Your task to perform on an android device: turn on bluetooth scan Image 0: 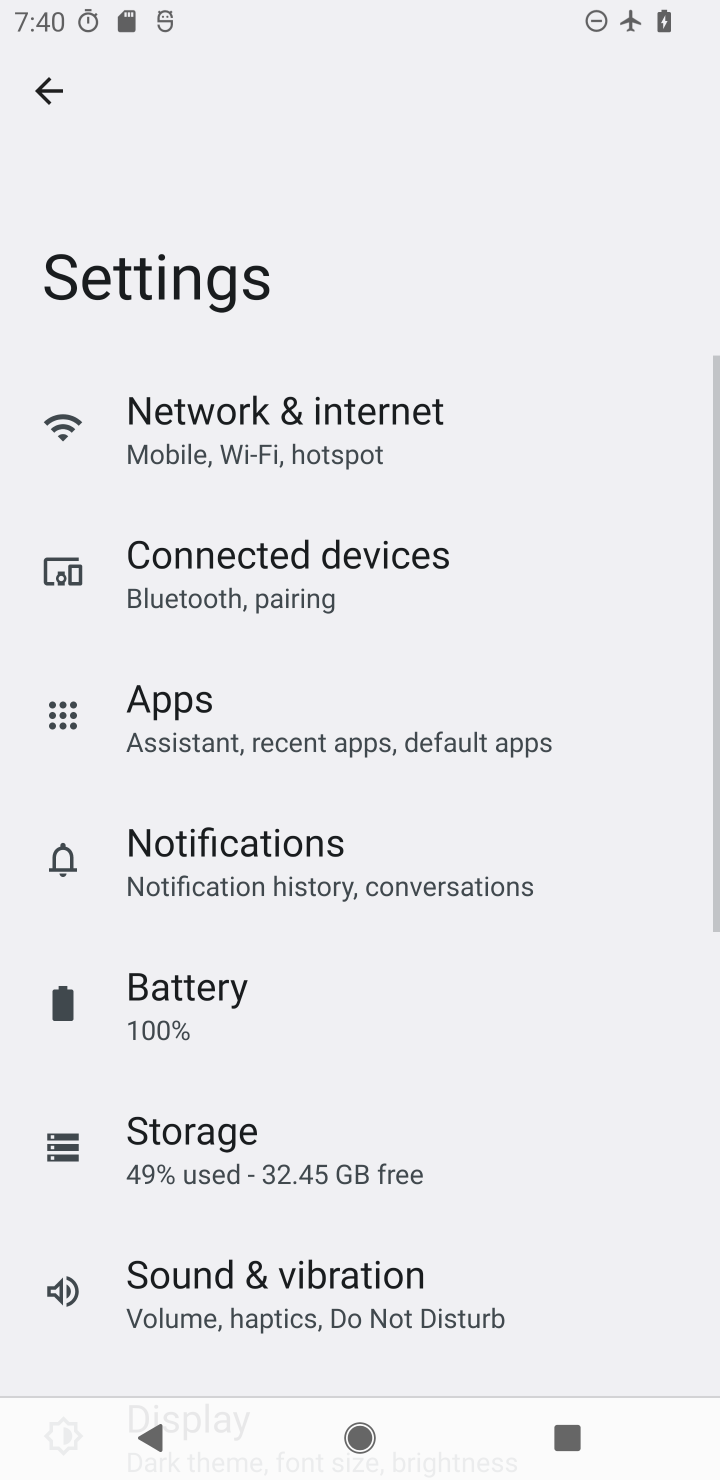
Step 0: press home button
Your task to perform on an android device: turn on bluetooth scan Image 1: 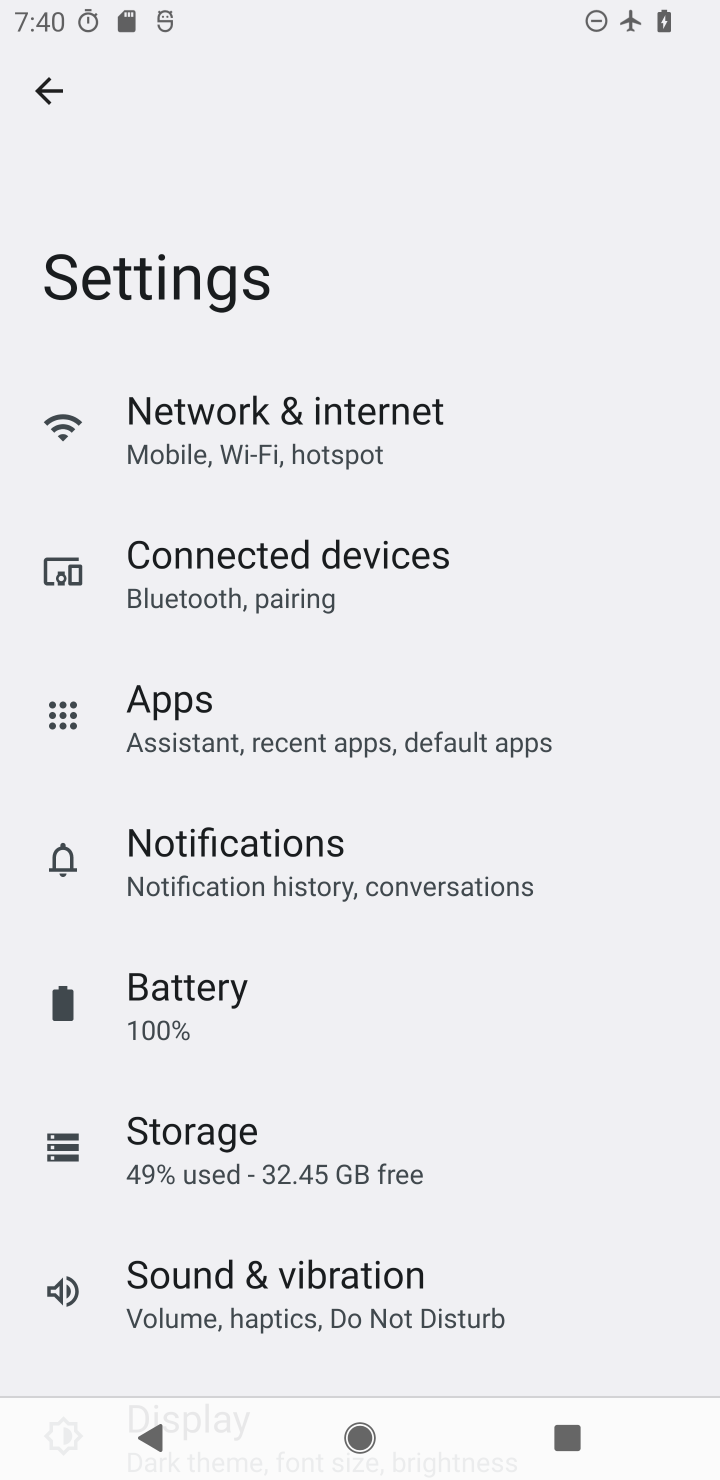
Step 1: press home button
Your task to perform on an android device: turn on bluetooth scan Image 2: 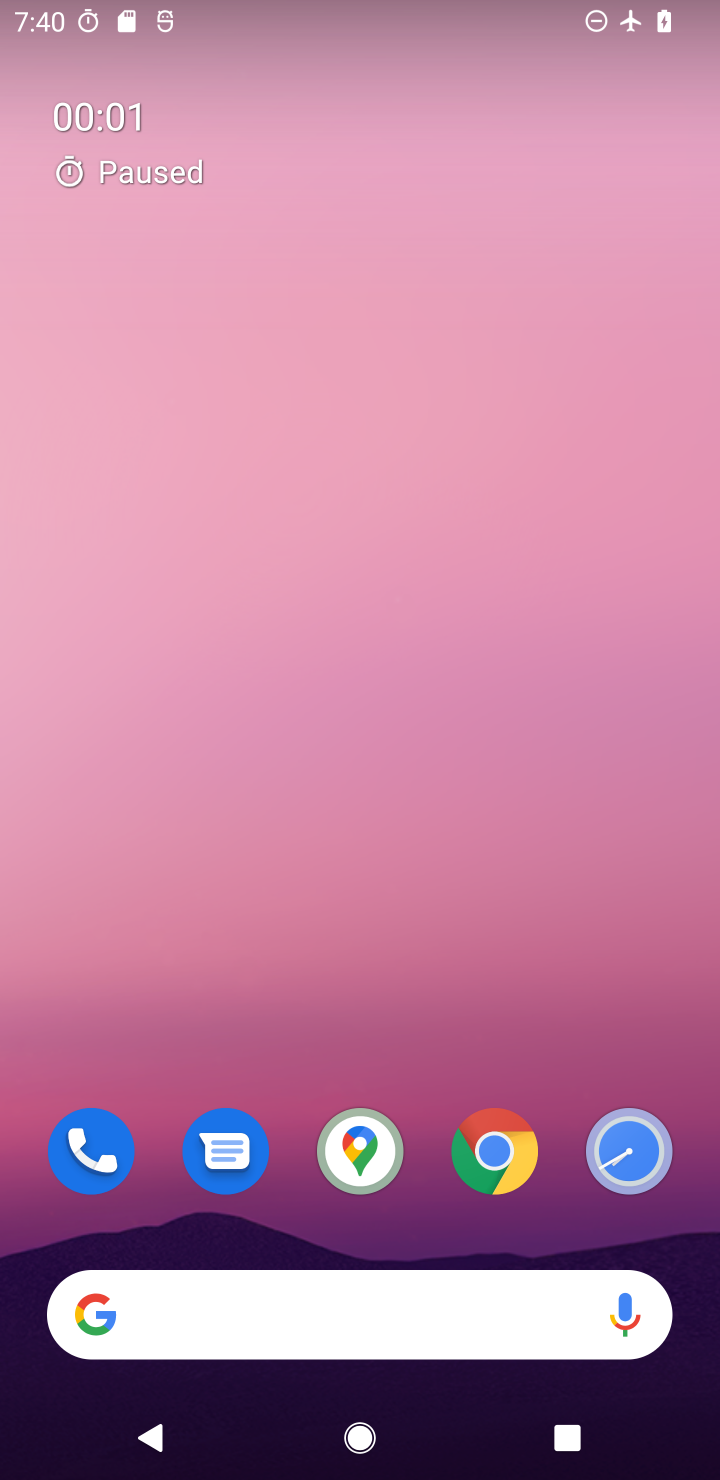
Step 2: drag from (366, 980) to (388, 2)
Your task to perform on an android device: turn on bluetooth scan Image 3: 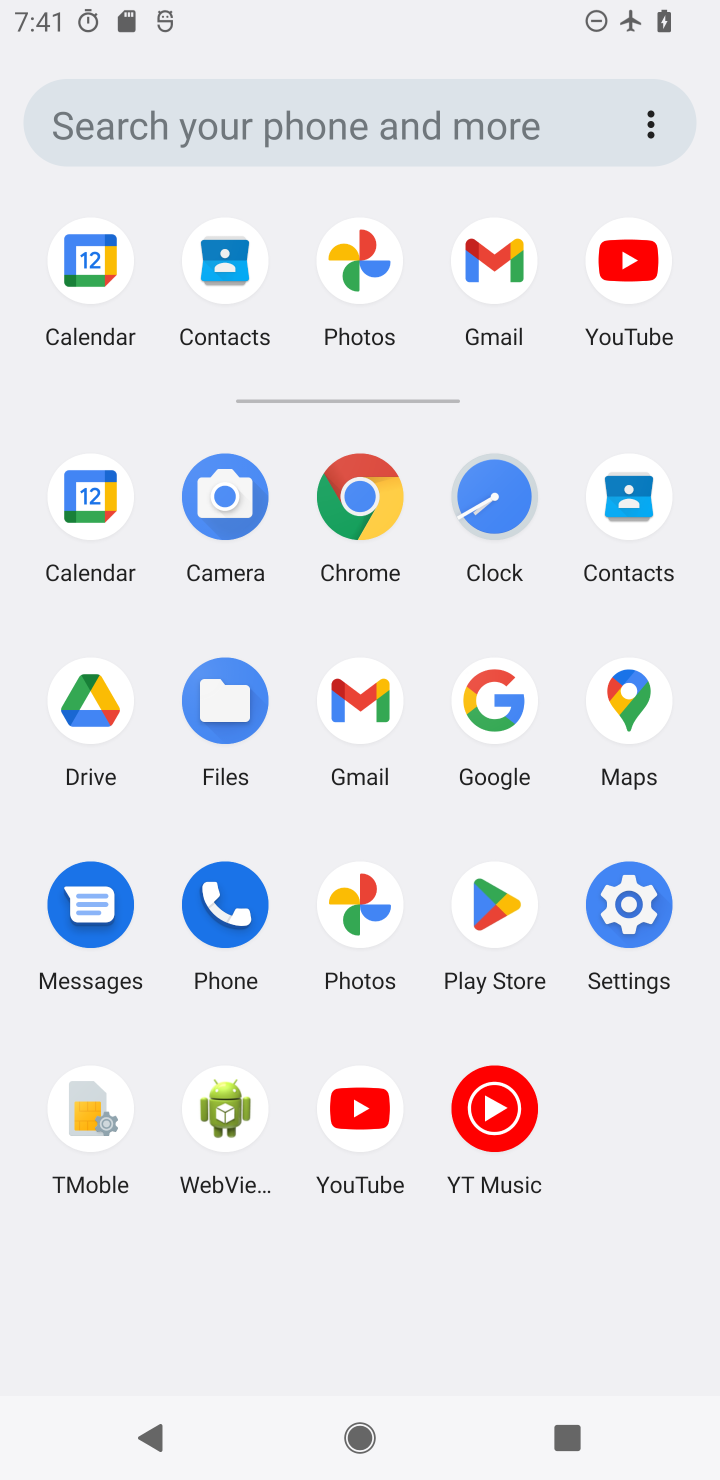
Step 3: click (608, 904)
Your task to perform on an android device: turn on bluetooth scan Image 4: 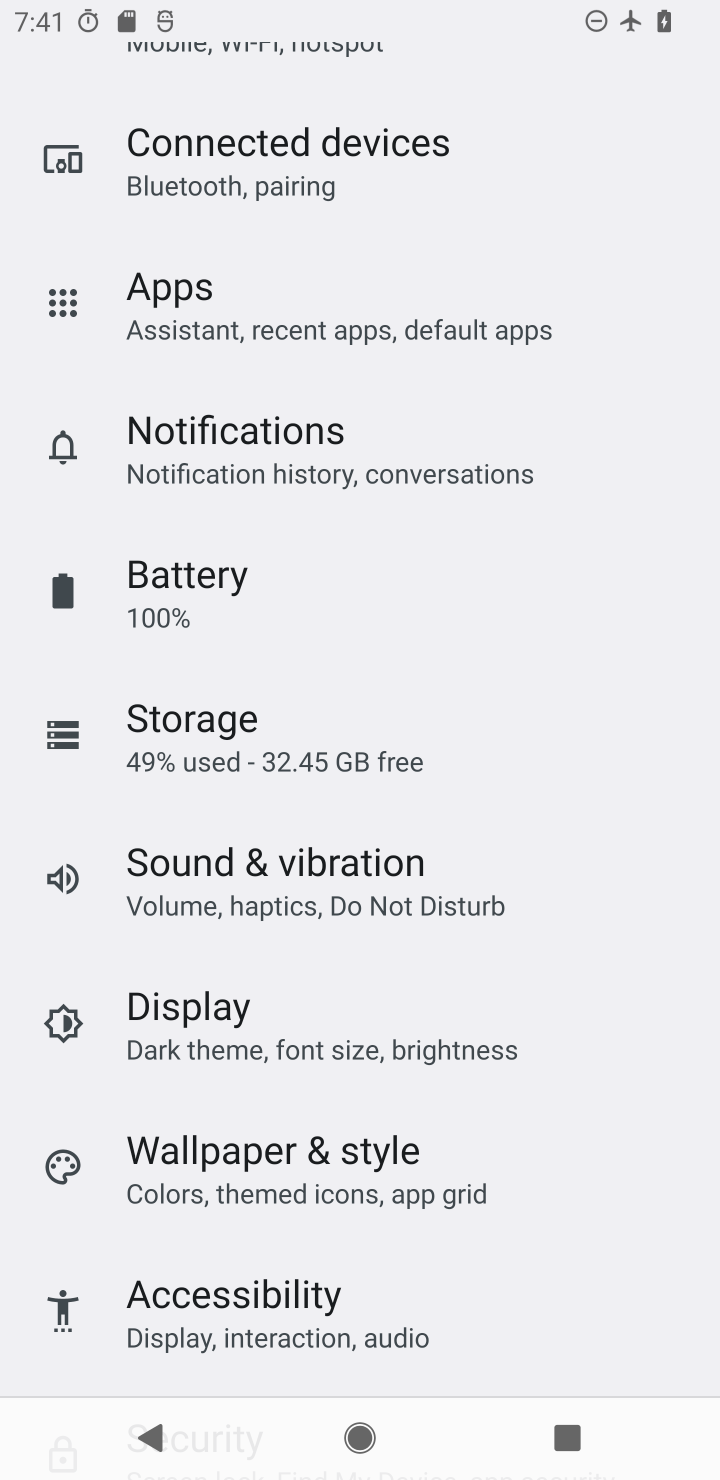
Step 4: drag from (553, 937) to (563, 255)
Your task to perform on an android device: turn on bluetooth scan Image 5: 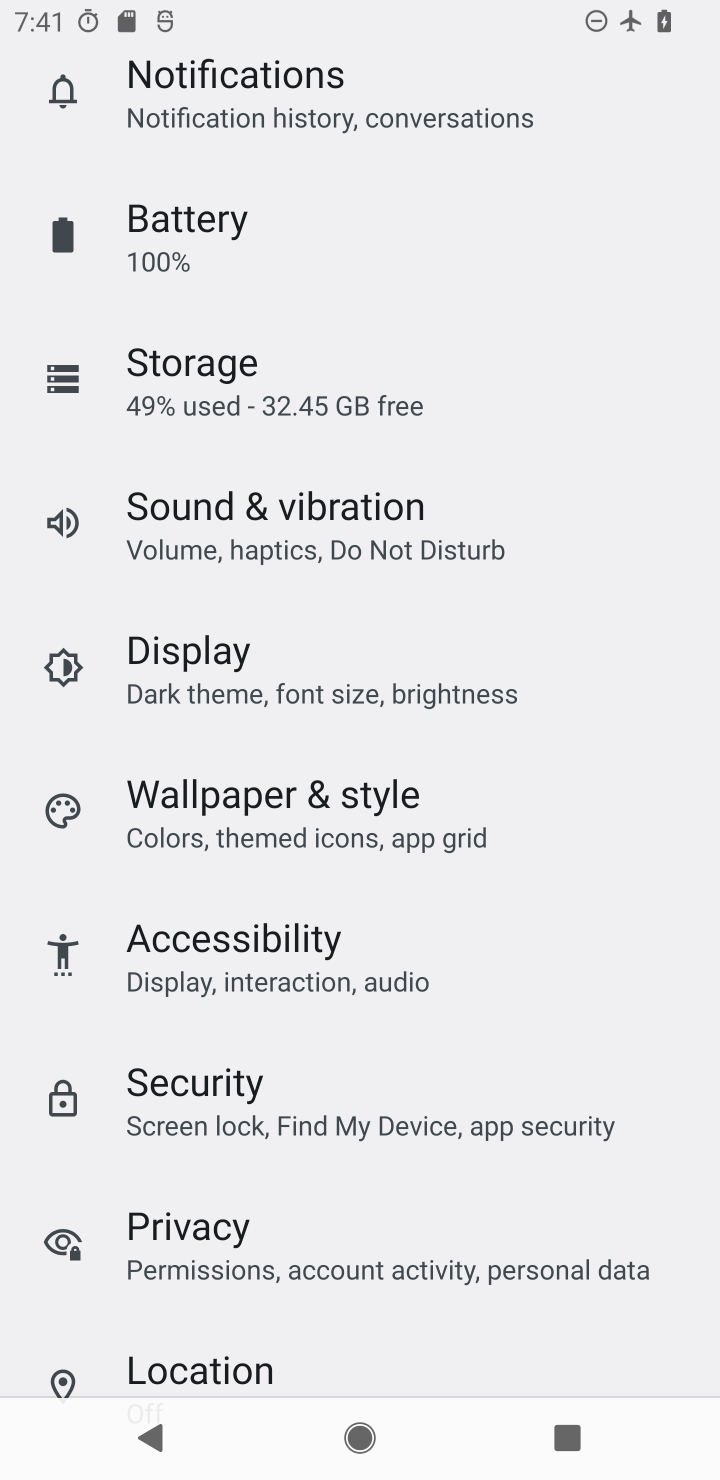
Step 5: drag from (503, 322) to (614, 211)
Your task to perform on an android device: turn on bluetooth scan Image 6: 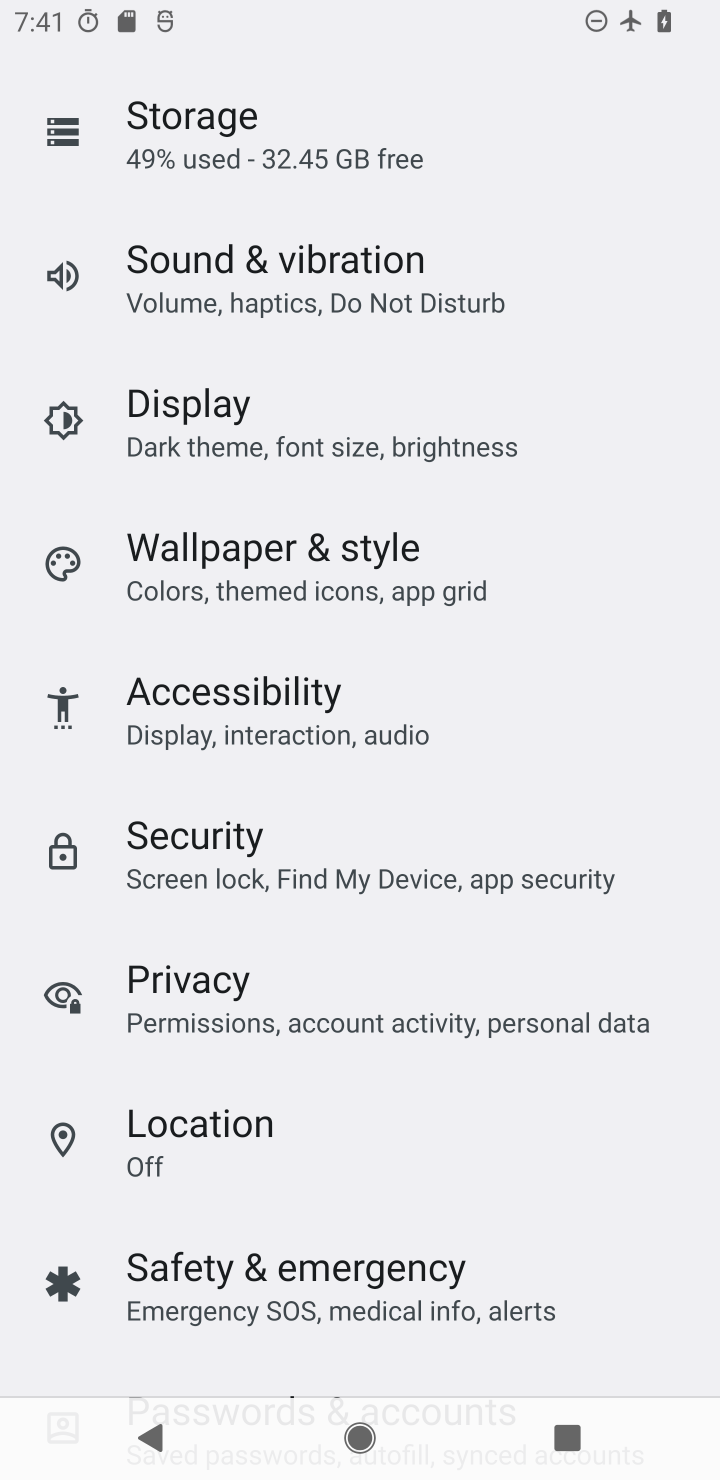
Step 6: click (240, 1136)
Your task to perform on an android device: turn on bluetooth scan Image 7: 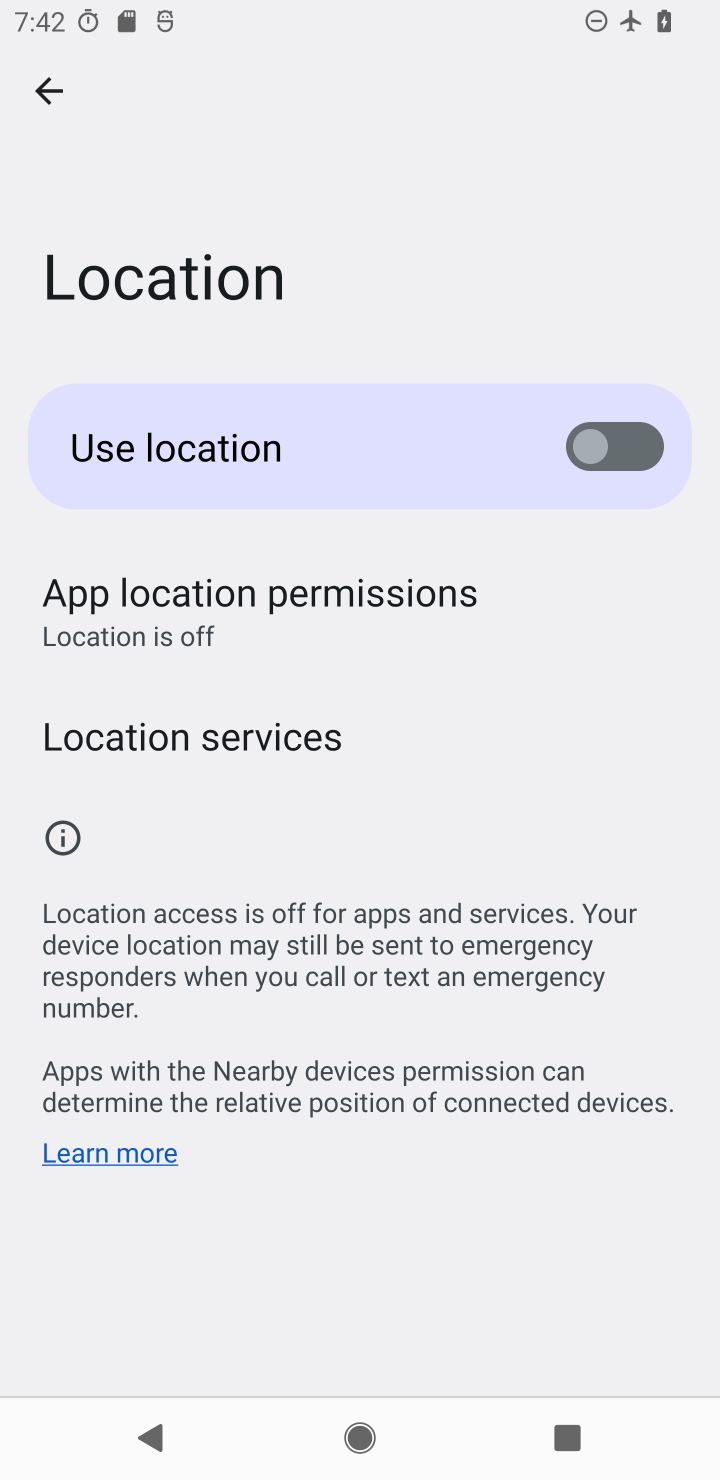
Step 7: click (296, 722)
Your task to perform on an android device: turn on bluetooth scan Image 8: 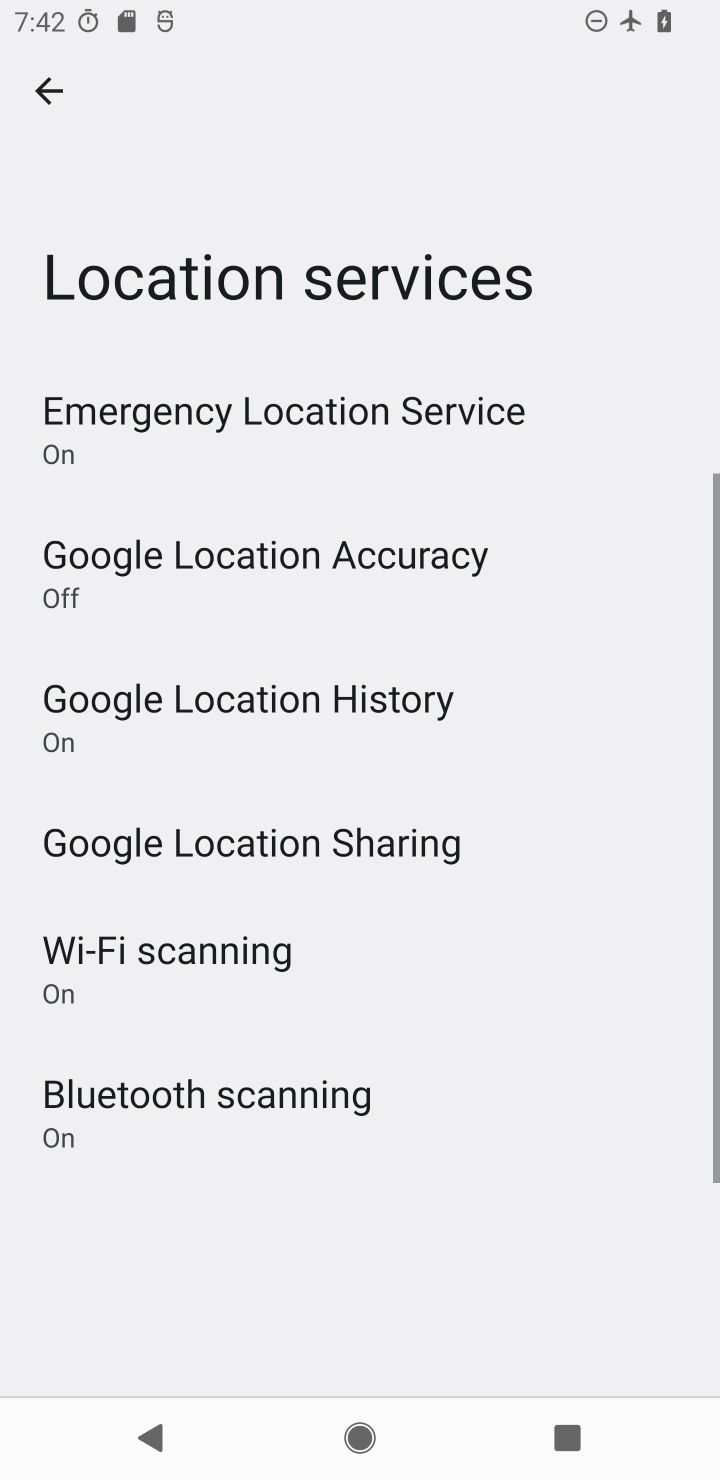
Step 8: click (243, 1089)
Your task to perform on an android device: turn on bluetooth scan Image 9: 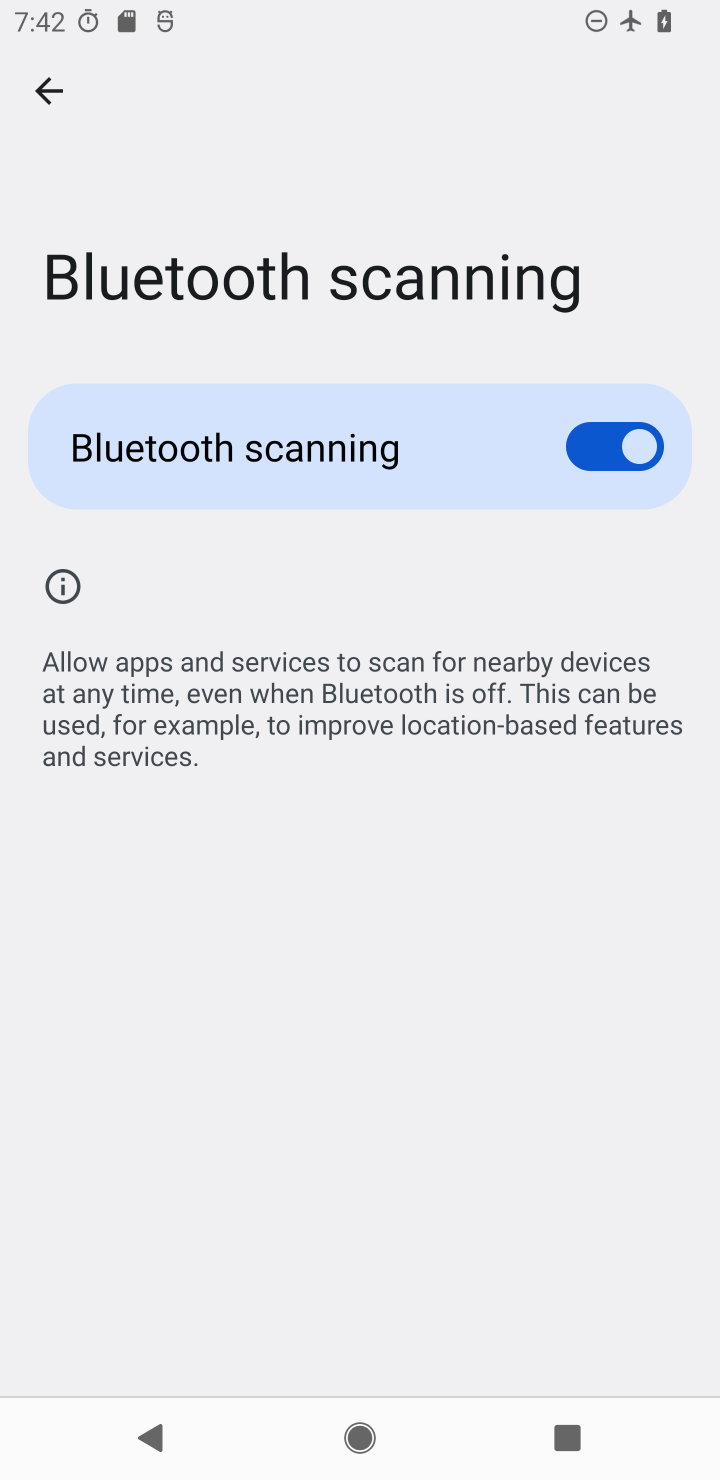
Step 9: task complete